Your task to perform on an android device: Is it going to rain this weekend? Image 0: 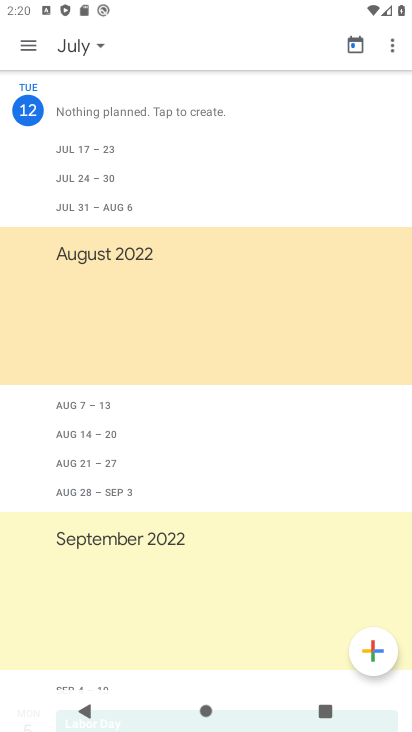
Step 0: press home button
Your task to perform on an android device: Is it going to rain this weekend? Image 1: 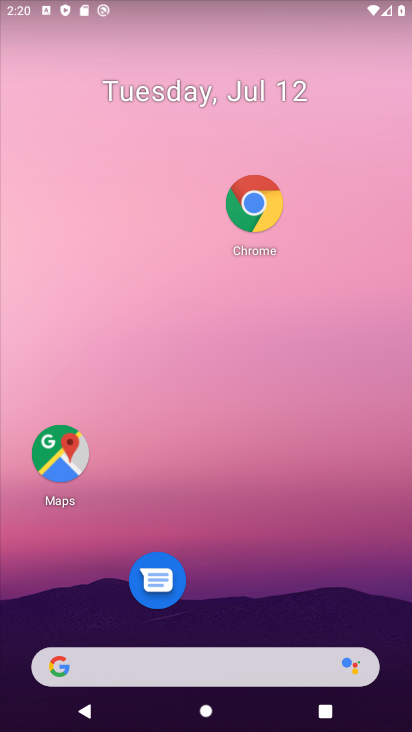
Step 1: click (254, 659)
Your task to perform on an android device: Is it going to rain this weekend? Image 2: 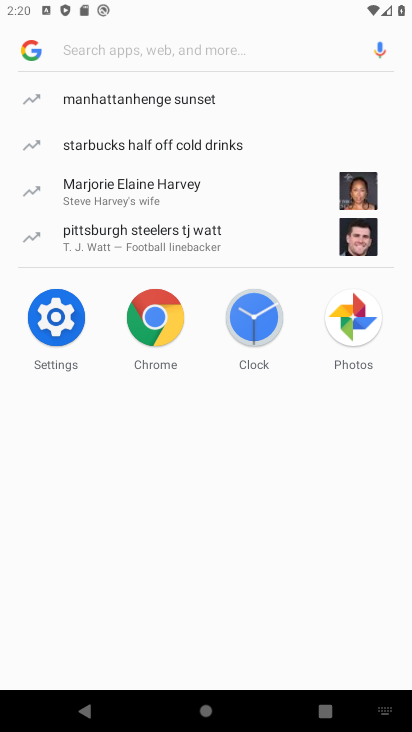
Step 2: type "weekend weather"
Your task to perform on an android device: Is it going to rain this weekend? Image 3: 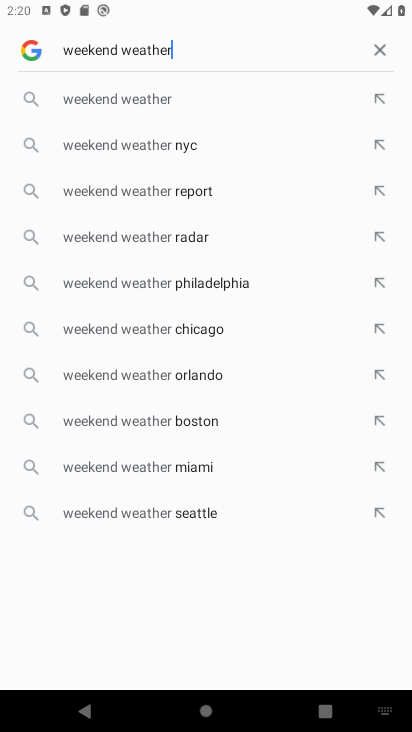
Step 3: click (217, 110)
Your task to perform on an android device: Is it going to rain this weekend? Image 4: 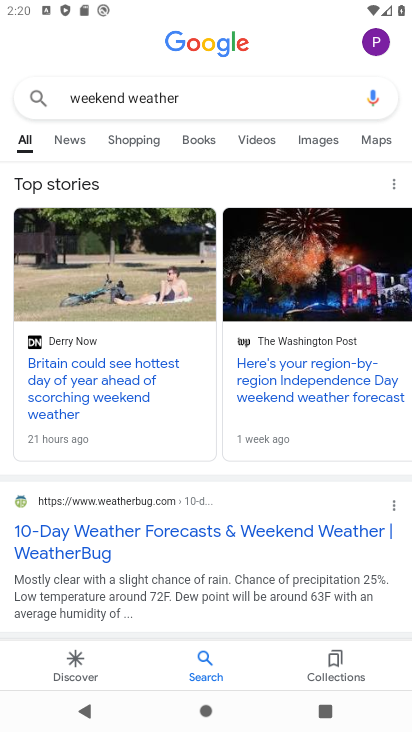
Step 4: click (135, 526)
Your task to perform on an android device: Is it going to rain this weekend? Image 5: 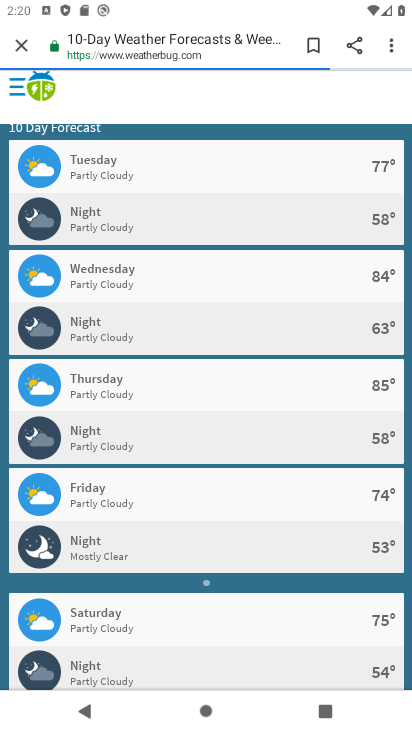
Step 5: click (284, 619)
Your task to perform on an android device: Is it going to rain this weekend? Image 6: 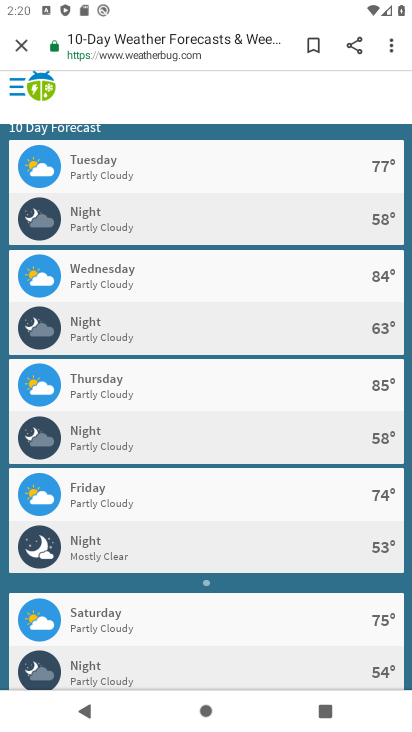
Step 6: task complete